Your task to perform on an android device: open app "Cash App" (install if not already installed) and go to login screen Image 0: 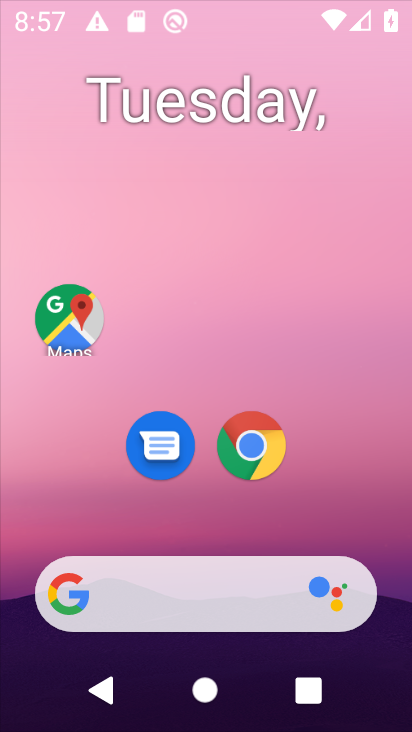
Step 0: drag from (171, 554) to (175, 590)
Your task to perform on an android device: open app "Cash App" (install if not already installed) and go to login screen Image 1: 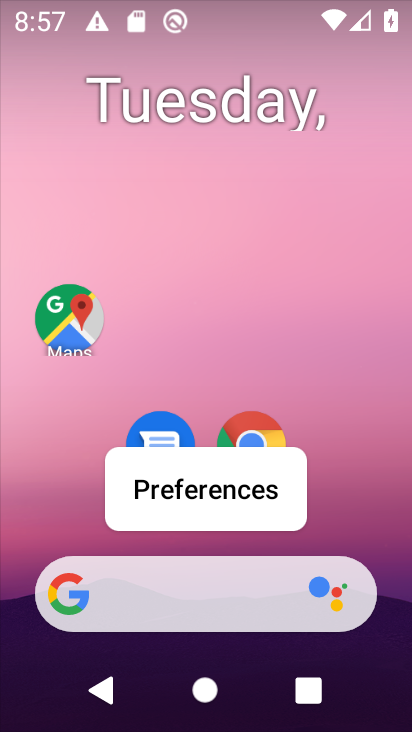
Step 1: drag from (241, 140) to (232, 551)
Your task to perform on an android device: open app "Cash App" (install if not already installed) and go to login screen Image 2: 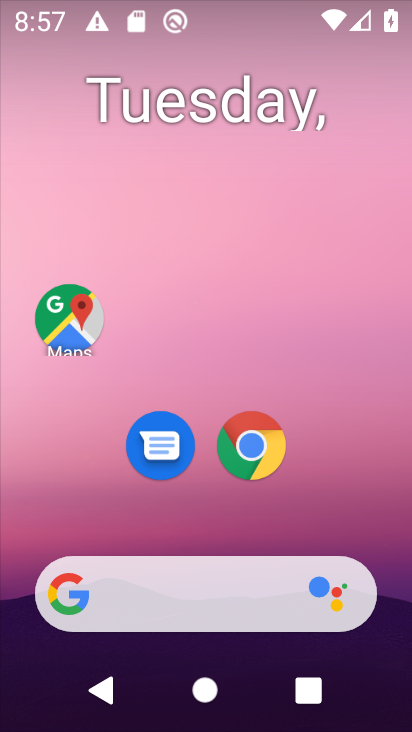
Step 2: drag from (181, 538) to (184, 60)
Your task to perform on an android device: open app "Cash App" (install if not already installed) and go to login screen Image 3: 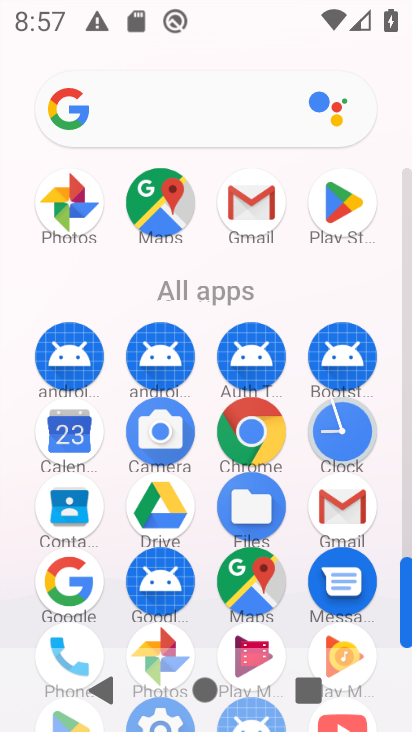
Step 3: click (345, 202)
Your task to perform on an android device: open app "Cash App" (install if not already installed) and go to login screen Image 4: 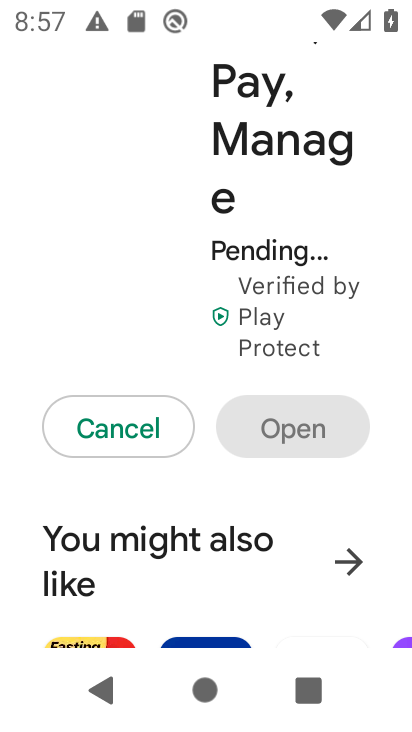
Step 4: drag from (157, 187) to (116, 574)
Your task to perform on an android device: open app "Cash App" (install if not already installed) and go to login screen Image 5: 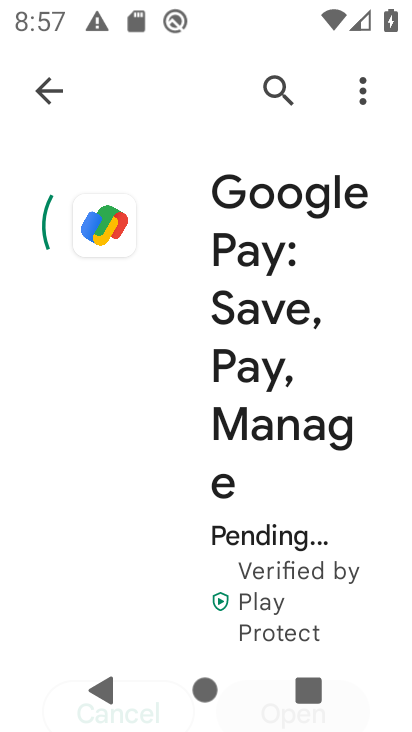
Step 5: drag from (169, 173) to (176, 472)
Your task to perform on an android device: open app "Cash App" (install if not already installed) and go to login screen Image 6: 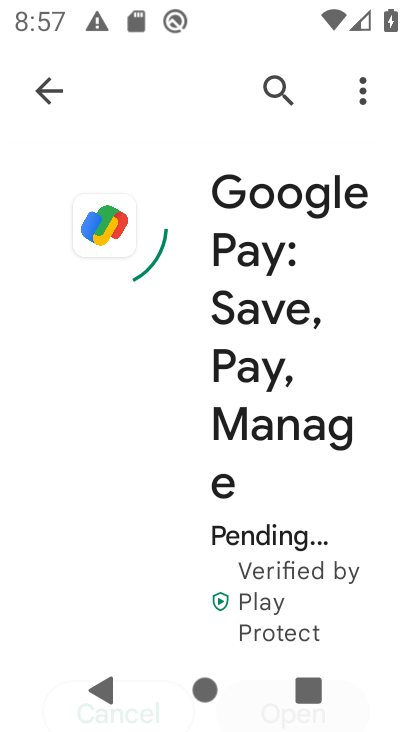
Step 6: click (33, 91)
Your task to perform on an android device: open app "Cash App" (install if not already installed) and go to login screen Image 7: 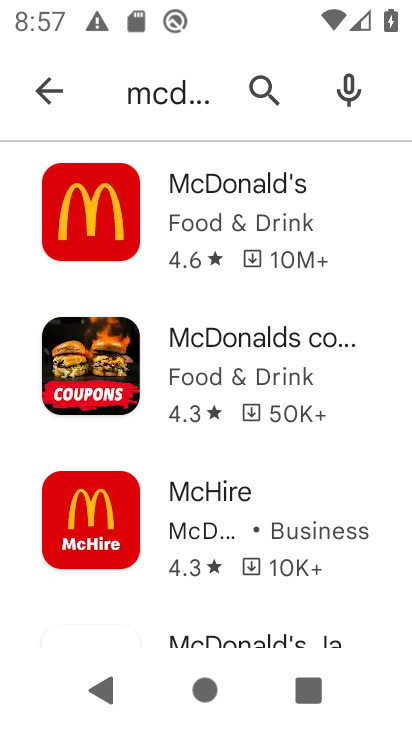
Step 7: click (263, 85)
Your task to perform on an android device: open app "Cash App" (install if not already installed) and go to login screen Image 8: 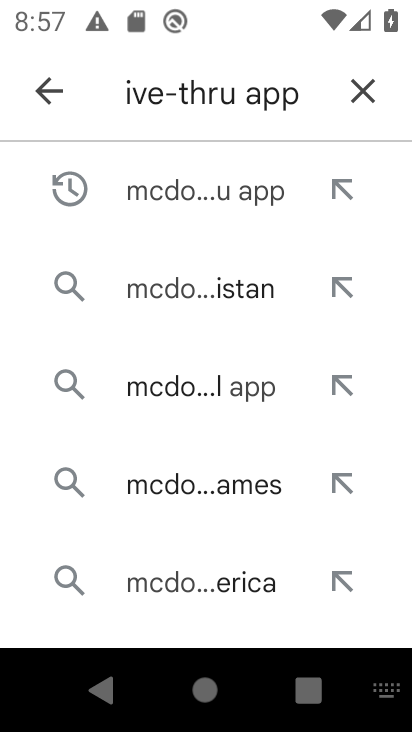
Step 8: click (374, 80)
Your task to perform on an android device: open app "Cash App" (install if not already installed) and go to login screen Image 9: 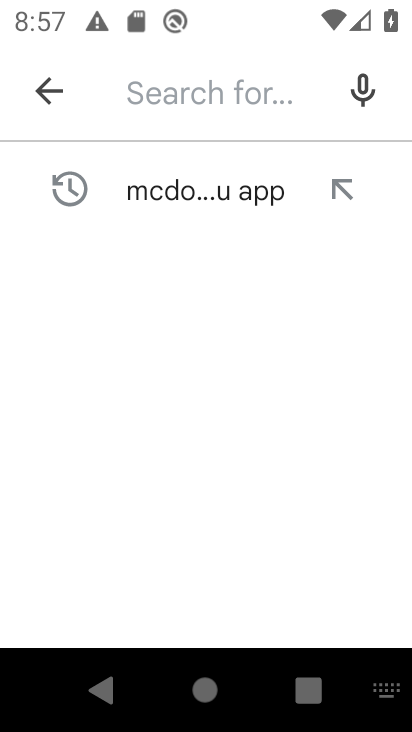
Step 9: click (215, 118)
Your task to perform on an android device: open app "Cash App" (install if not already installed) and go to login screen Image 10: 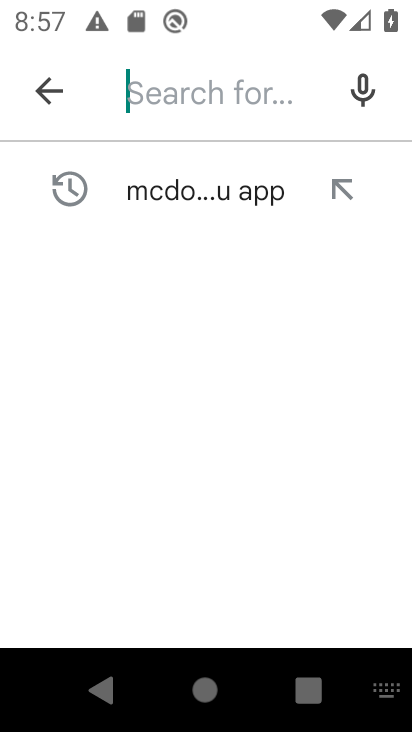
Step 10: type "Cash App "
Your task to perform on an android device: open app "Cash App" (install if not already installed) and go to login screen Image 11: 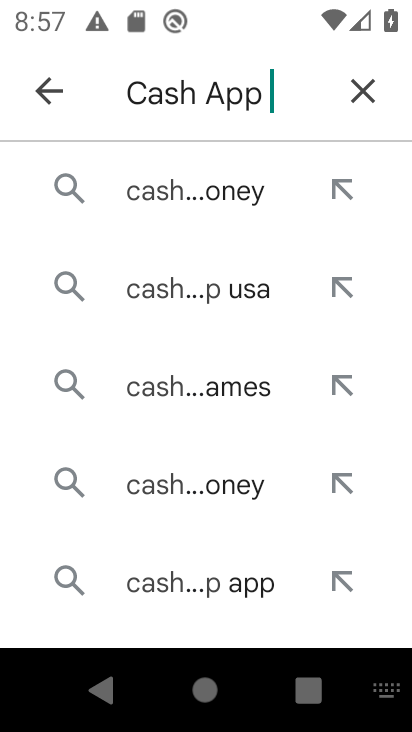
Step 11: click (162, 193)
Your task to perform on an android device: open app "Cash App" (install if not already installed) and go to login screen Image 12: 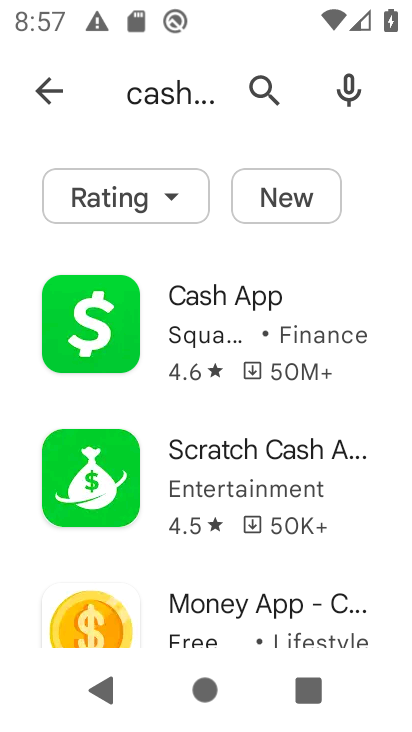
Step 12: click (186, 333)
Your task to perform on an android device: open app "Cash App" (install if not already installed) and go to login screen Image 13: 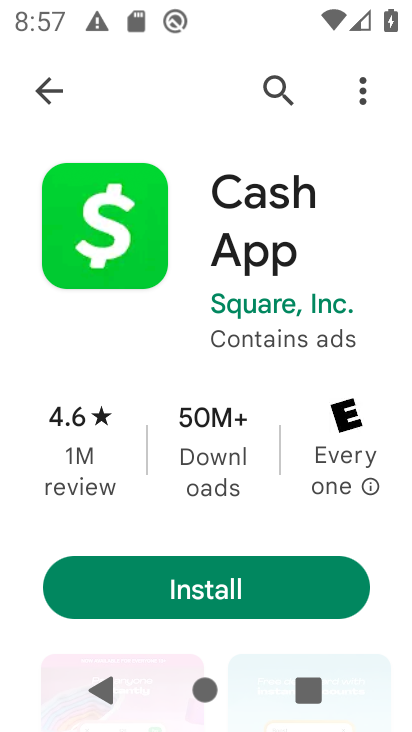
Step 13: click (222, 562)
Your task to perform on an android device: open app "Cash App" (install if not already installed) and go to login screen Image 14: 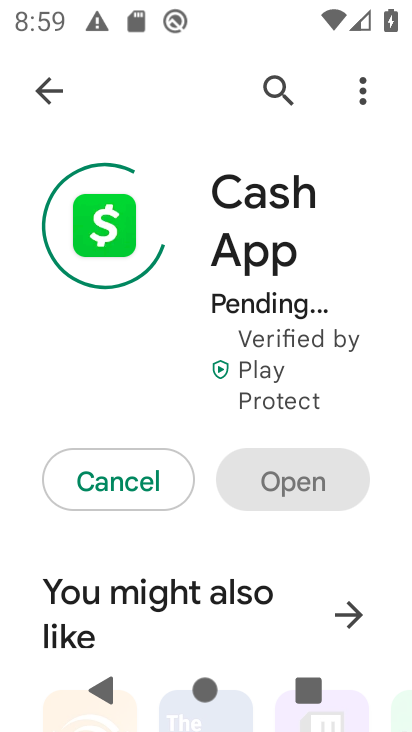
Step 14: task complete